Your task to perform on an android device: Open the phone app and click the voicemail tab. Image 0: 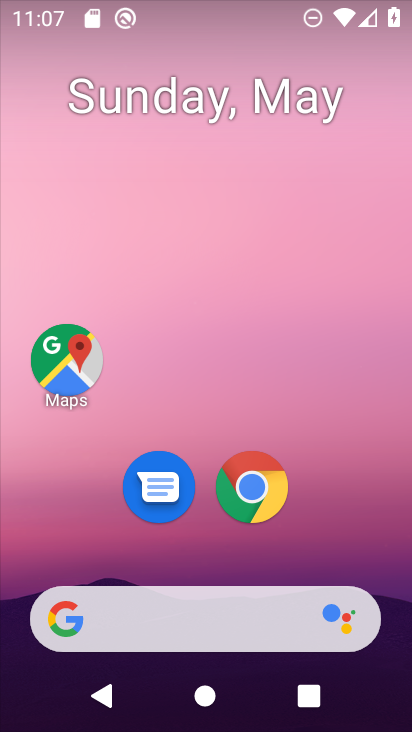
Step 0: drag from (399, 590) to (300, 122)
Your task to perform on an android device: Open the phone app and click the voicemail tab. Image 1: 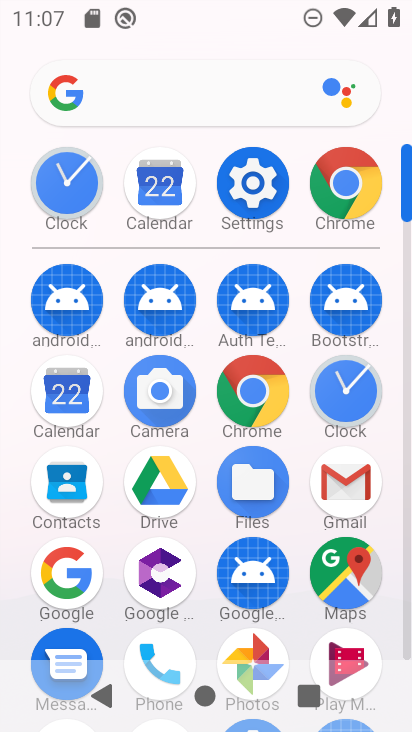
Step 1: click (163, 644)
Your task to perform on an android device: Open the phone app and click the voicemail tab. Image 2: 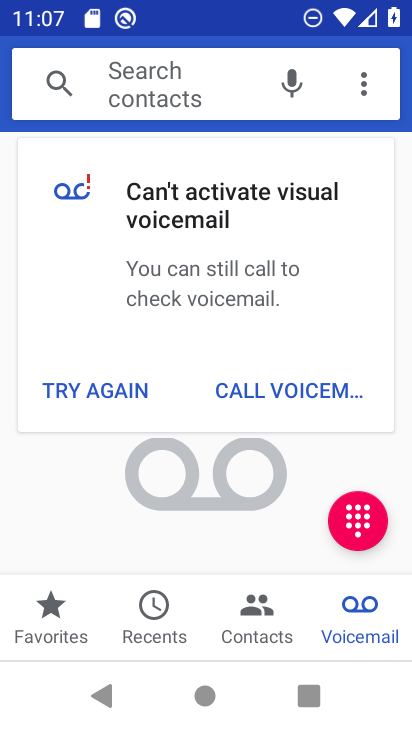
Step 2: task complete